Your task to perform on an android device: turn pop-ups off in chrome Image 0: 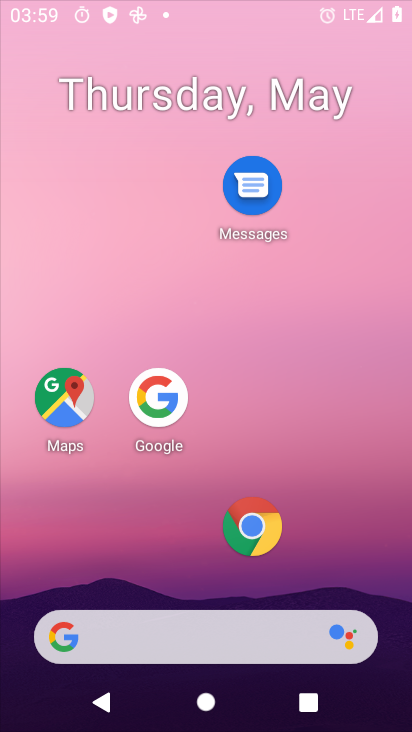
Step 0: click (219, 124)
Your task to perform on an android device: turn pop-ups off in chrome Image 1: 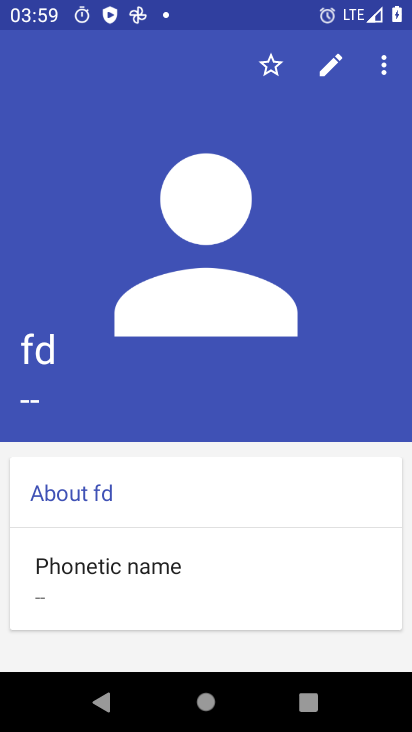
Step 1: press home button
Your task to perform on an android device: turn pop-ups off in chrome Image 2: 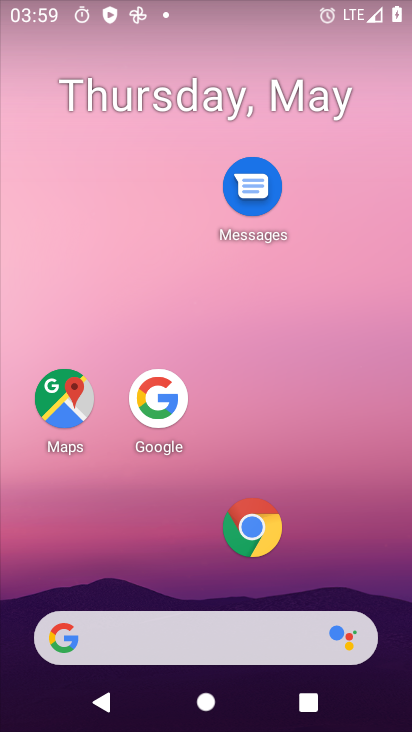
Step 2: drag from (197, 571) to (208, 271)
Your task to perform on an android device: turn pop-ups off in chrome Image 3: 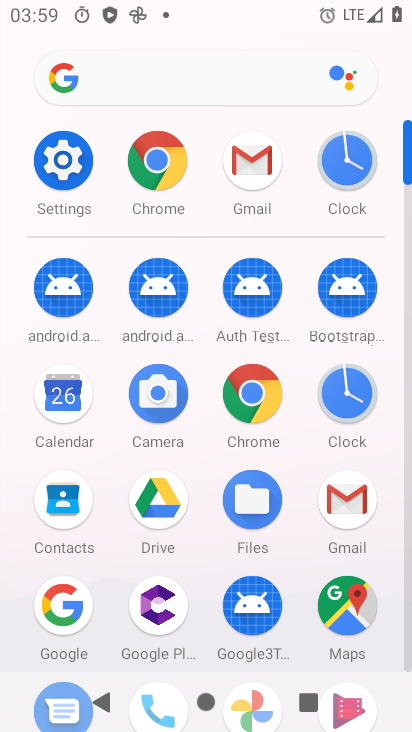
Step 3: click (249, 385)
Your task to perform on an android device: turn pop-ups off in chrome Image 4: 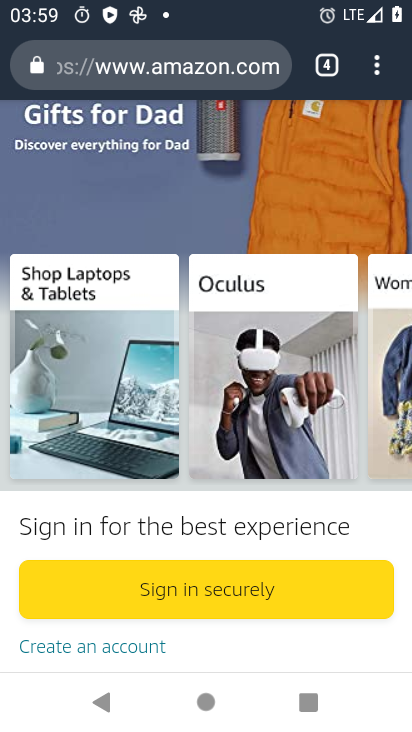
Step 4: click (378, 60)
Your task to perform on an android device: turn pop-ups off in chrome Image 5: 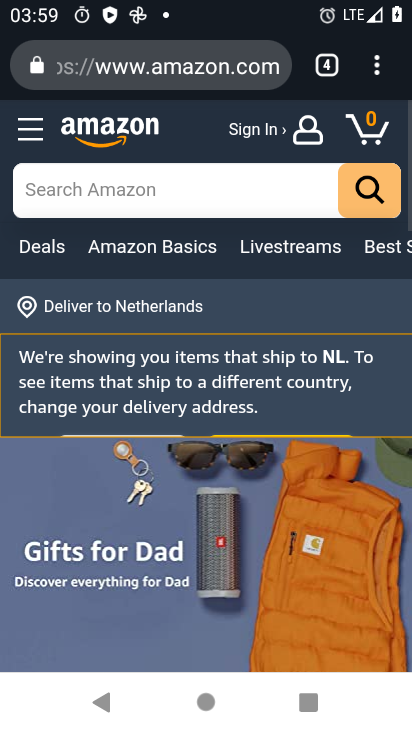
Step 5: click (378, 60)
Your task to perform on an android device: turn pop-ups off in chrome Image 6: 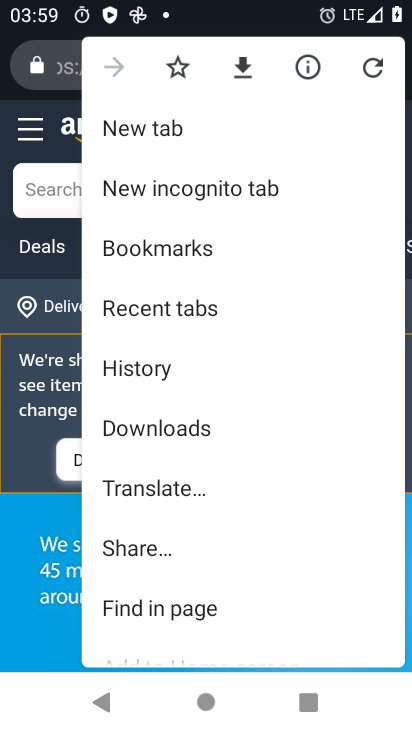
Step 6: drag from (201, 551) to (274, 166)
Your task to perform on an android device: turn pop-ups off in chrome Image 7: 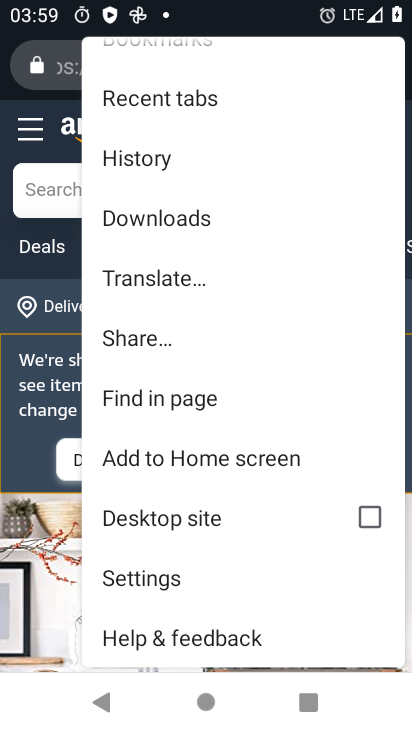
Step 7: click (201, 578)
Your task to perform on an android device: turn pop-ups off in chrome Image 8: 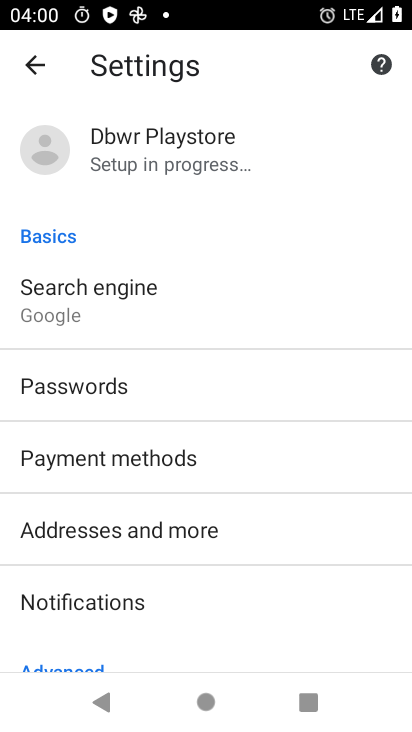
Step 8: drag from (177, 615) to (217, 305)
Your task to perform on an android device: turn pop-ups off in chrome Image 9: 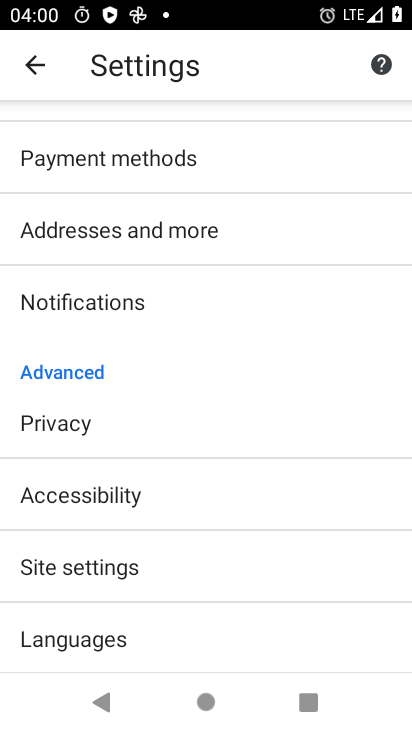
Step 9: click (94, 548)
Your task to perform on an android device: turn pop-ups off in chrome Image 10: 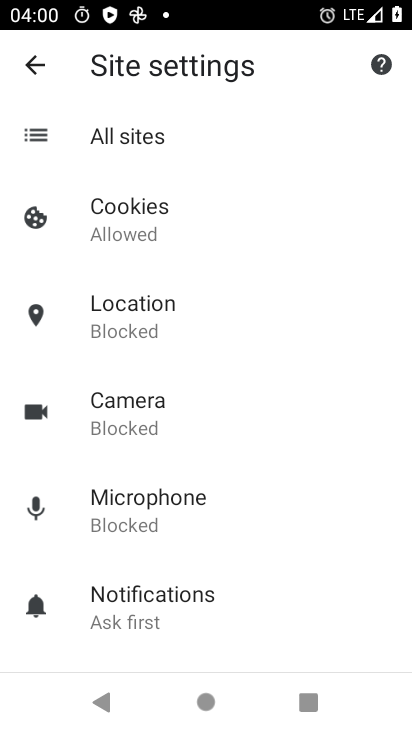
Step 10: drag from (230, 571) to (300, 110)
Your task to perform on an android device: turn pop-ups off in chrome Image 11: 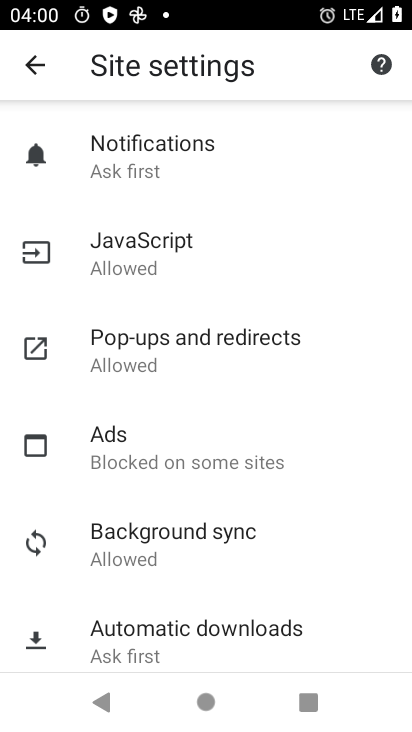
Step 11: click (186, 343)
Your task to perform on an android device: turn pop-ups off in chrome Image 12: 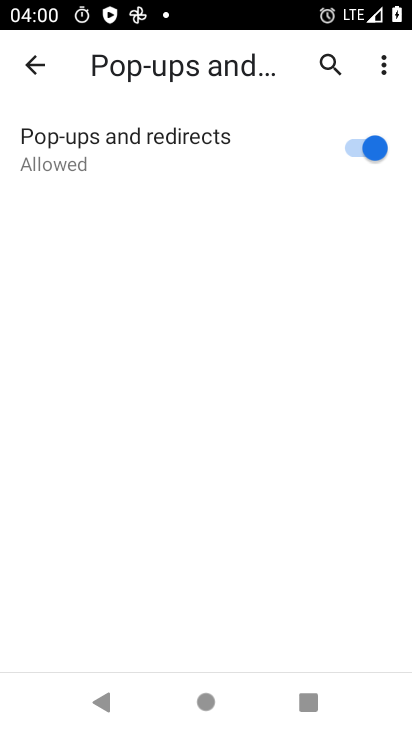
Step 12: click (355, 144)
Your task to perform on an android device: turn pop-ups off in chrome Image 13: 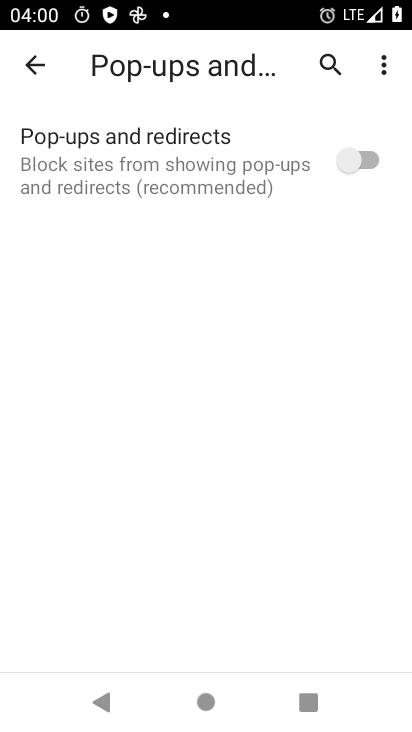
Step 13: task complete